Your task to perform on an android device: toggle notifications settings in the gmail app Image 0: 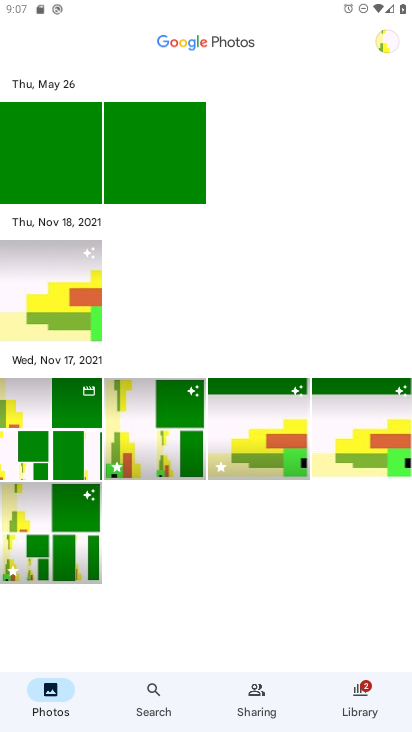
Step 0: press home button
Your task to perform on an android device: toggle notifications settings in the gmail app Image 1: 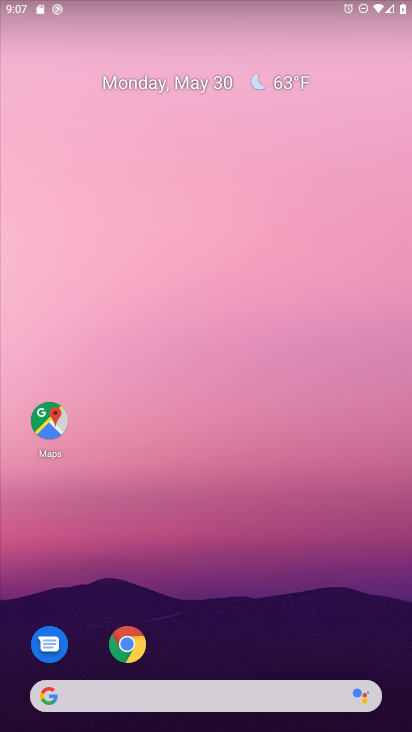
Step 1: drag from (209, 643) to (197, 133)
Your task to perform on an android device: toggle notifications settings in the gmail app Image 2: 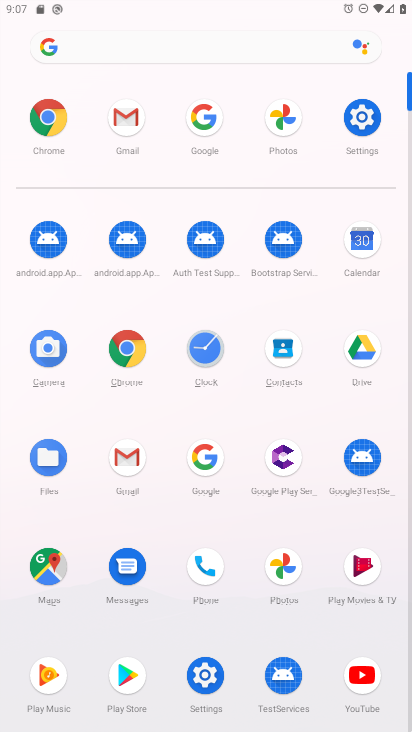
Step 2: click (129, 122)
Your task to perform on an android device: toggle notifications settings in the gmail app Image 3: 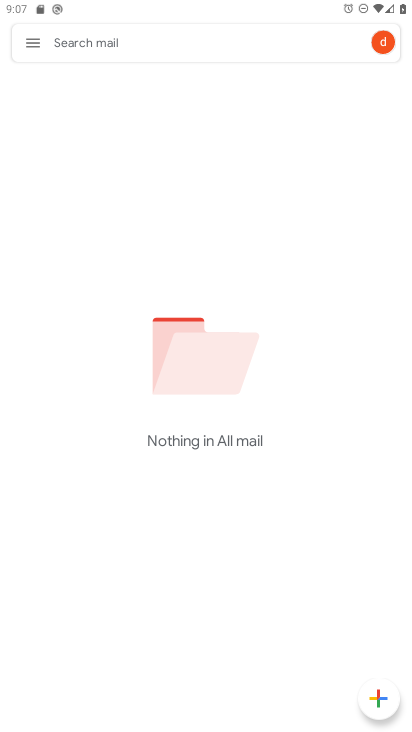
Step 3: click (43, 38)
Your task to perform on an android device: toggle notifications settings in the gmail app Image 4: 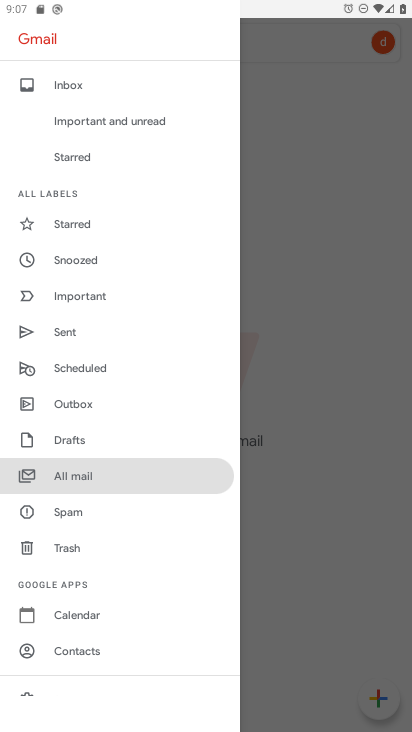
Step 4: drag from (109, 625) to (93, 304)
Your task to perform on an android device: toggle notifications settings in the gmail app Image 5: 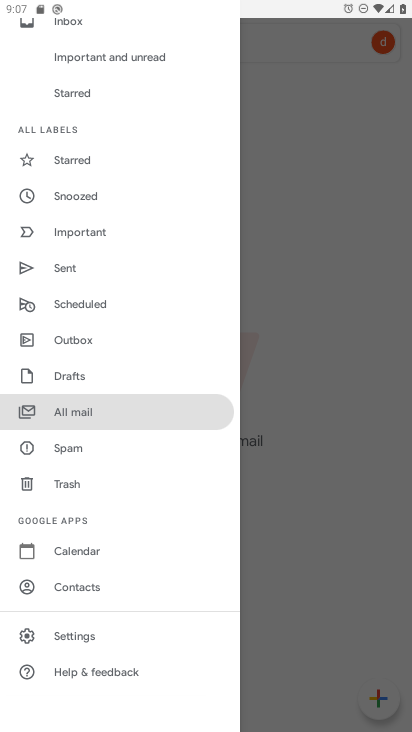
Step 5: click (84, 638)
Your task to perform on an android device: toggle notifications settings in the gmail app Image 6: 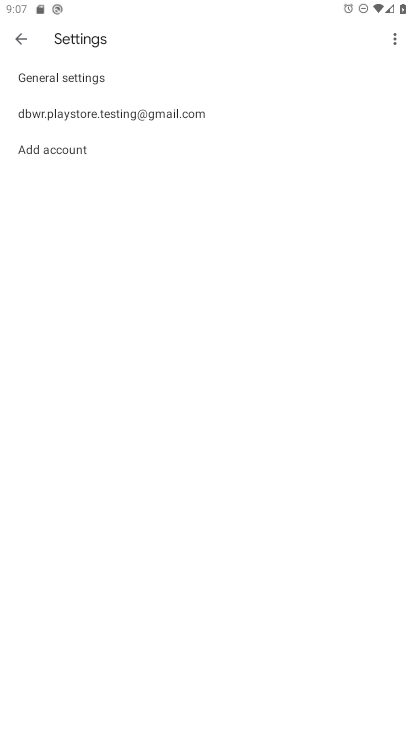
Step 6: click (83, 113)
Your task to perform on an android device: toggle notifications settings in the gmail app Image 7: 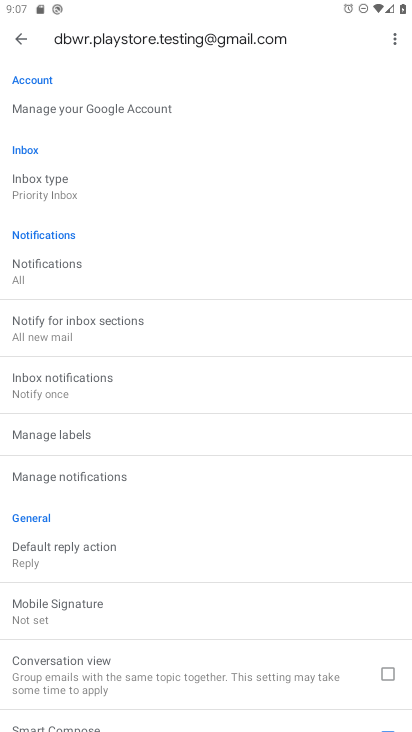
Step 7: click (83, 270)
Your task to perform on an android device: toggle notifications settings in the gmail app Image 8: 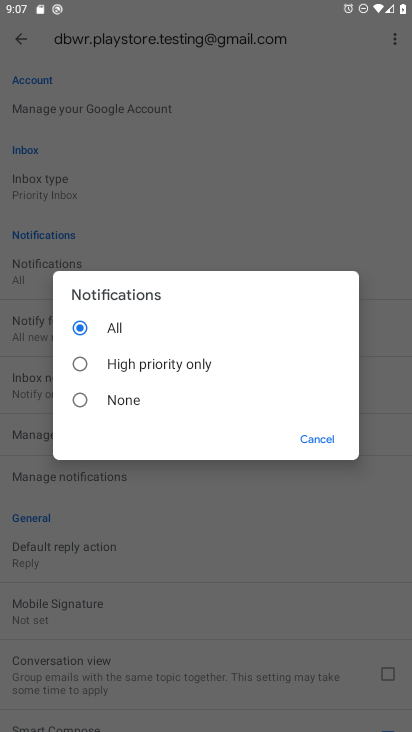
Step 8: click (103, 404)
Your task to perform on an android device: toggle notifications settings in the gmail app Image 9: 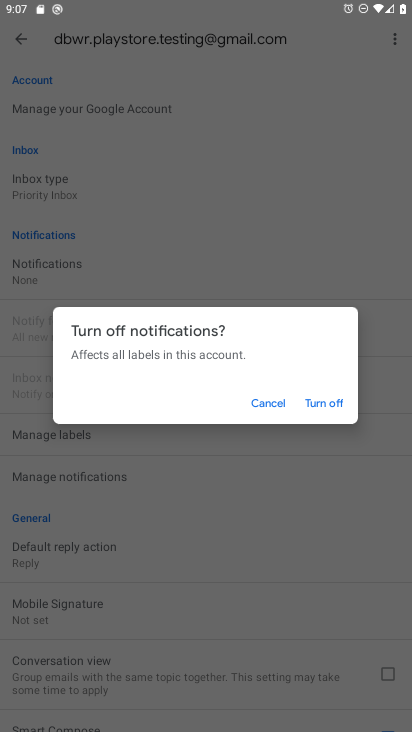
Step 9: click (269, 402)
Your task to perform on an android device: toggle notifications settings in the gmail app Image 10: 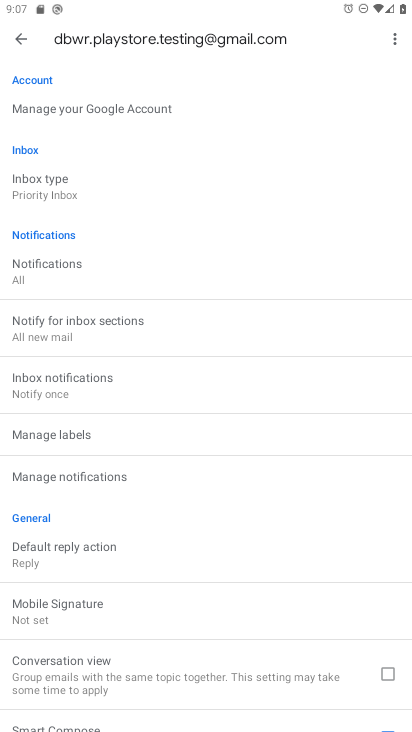
Step 10: click (61, 273)
Your task to perform on an android device: toggle notifications settings in the gmail app Image 11: 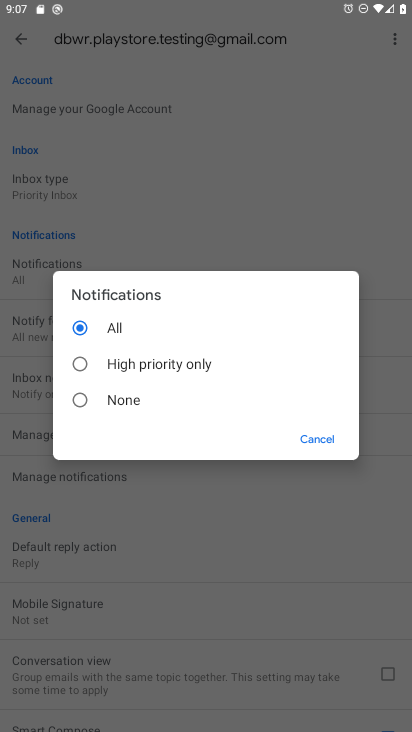
Step 11: click (94, 400)
Your task to perform on an android device: toggle notifications settings in the gmail app Image 12: 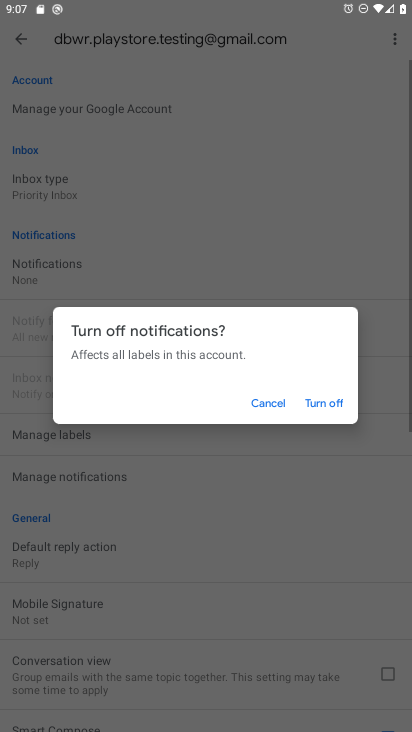
Step 12: click (318, 406)
Your task to perform on an android device: toggle notifications settings in the gmail app Image 13: 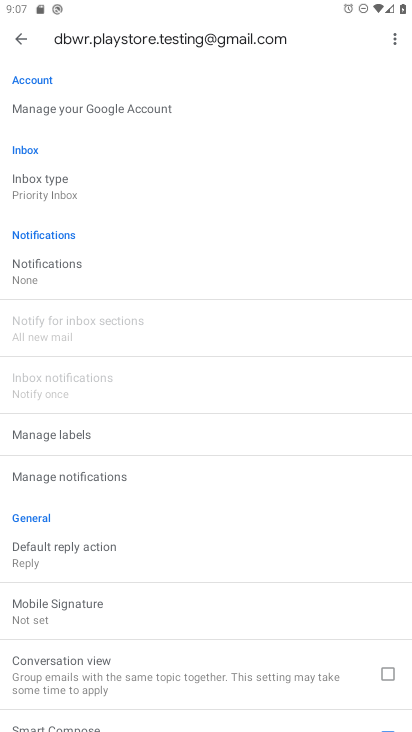
Step 13: task complete